Your task to perform on an android device: open app "Google Play services" Image 0: 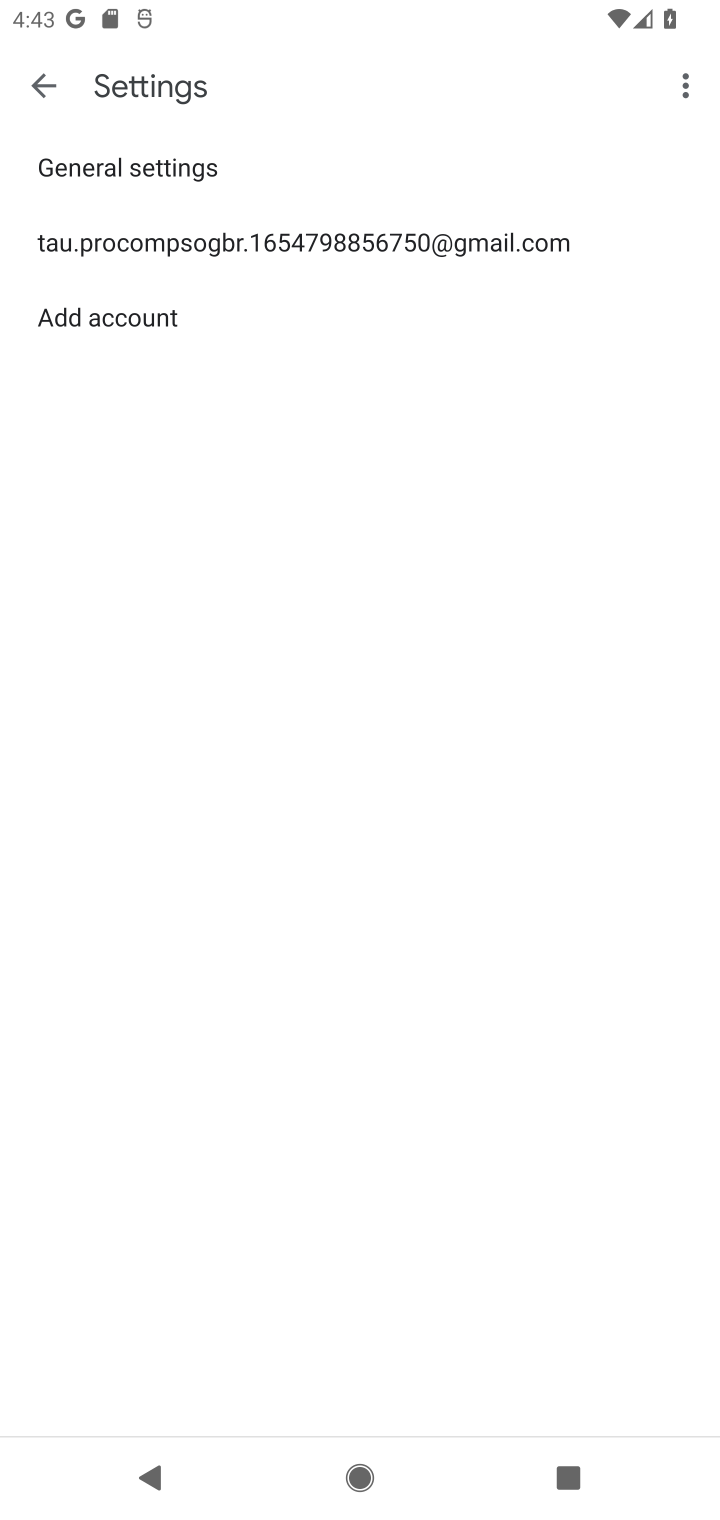
Step 0: press home button
Your task to perform on an android device: open app "Google Play services" Image 1: 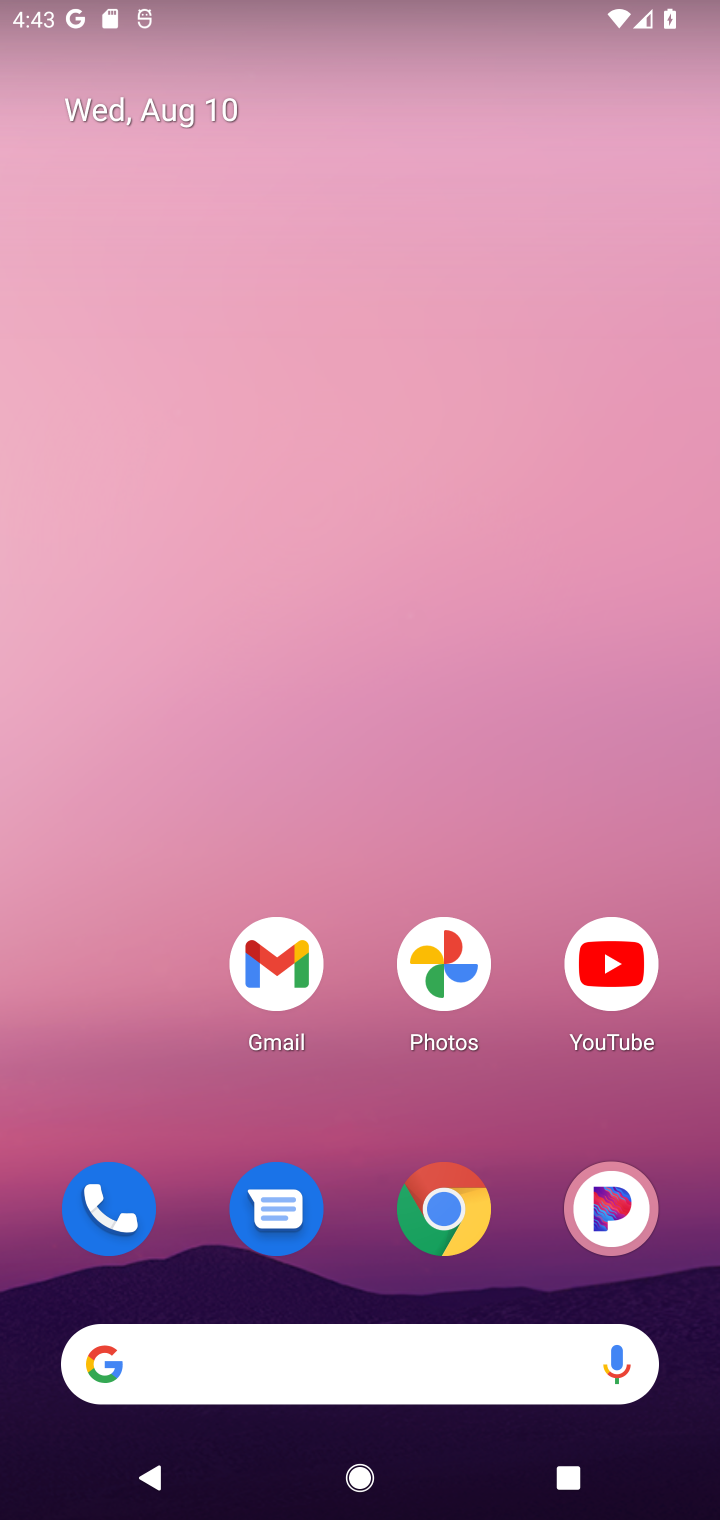
Step 1: drag from (349, 1295) to (355, 7)
Your task to perform on an android device: open app "Google Play services" Image 2: 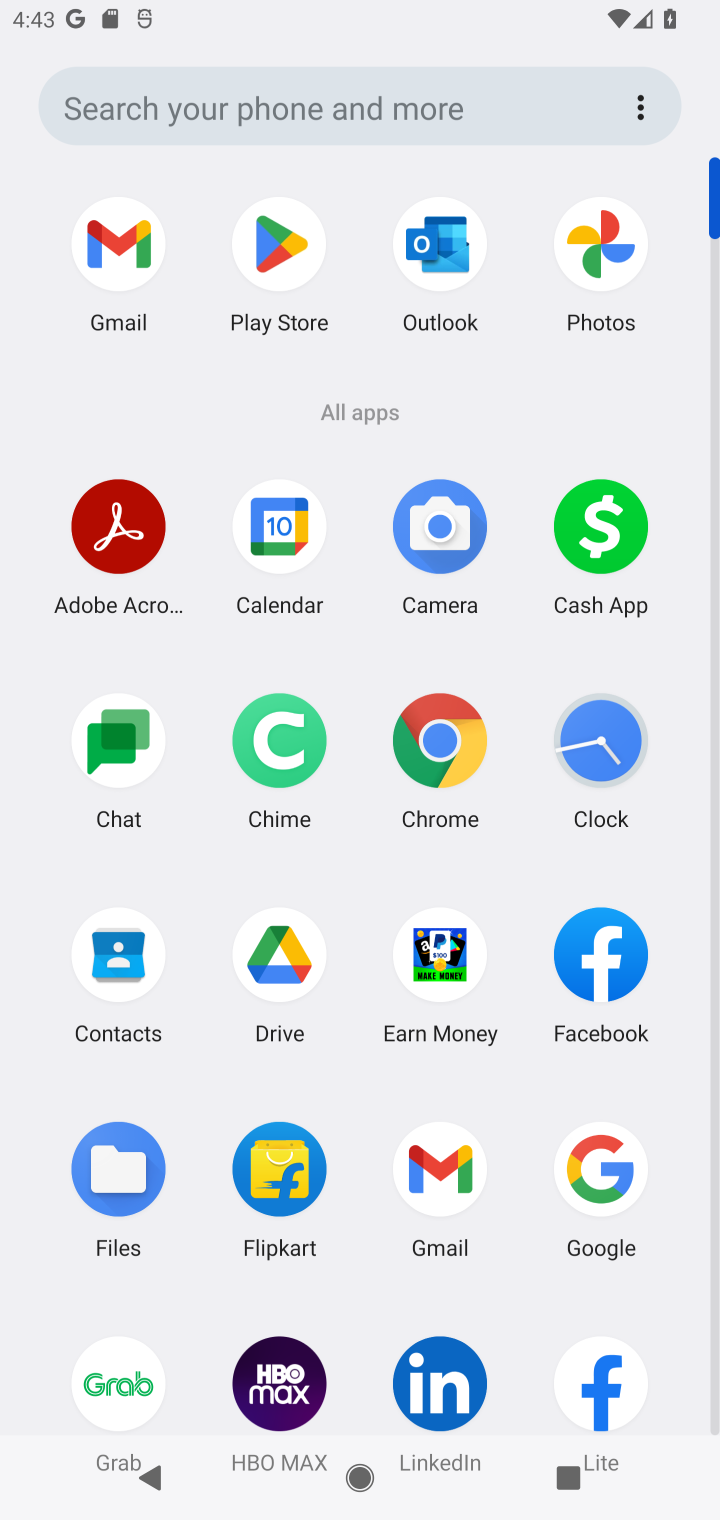
Step 2: click (277, 289)
Your task to perform on an android device: open app "Google Play services" Image 3: 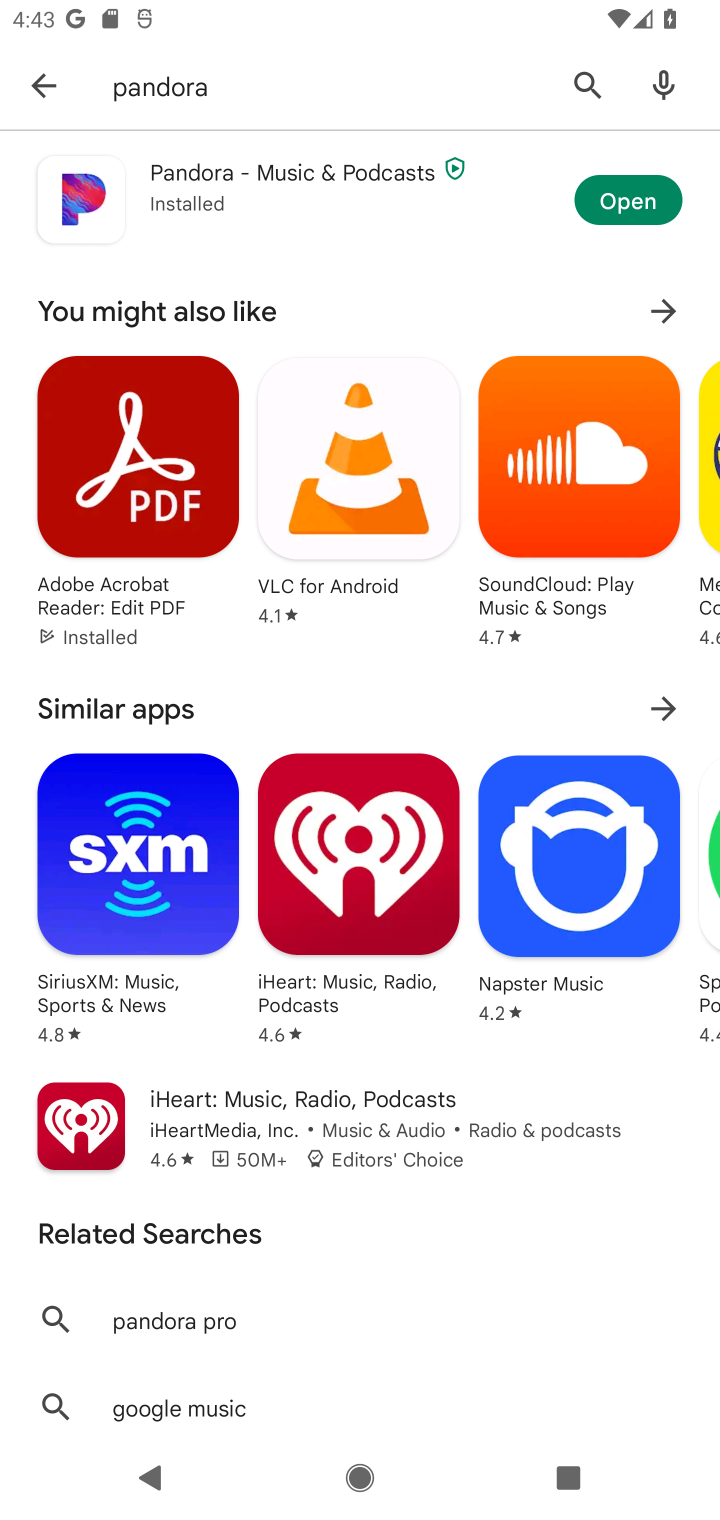
Step 3: click (561, 117)
Your task to perform on an android device: open app "Google Play services" Image 4: 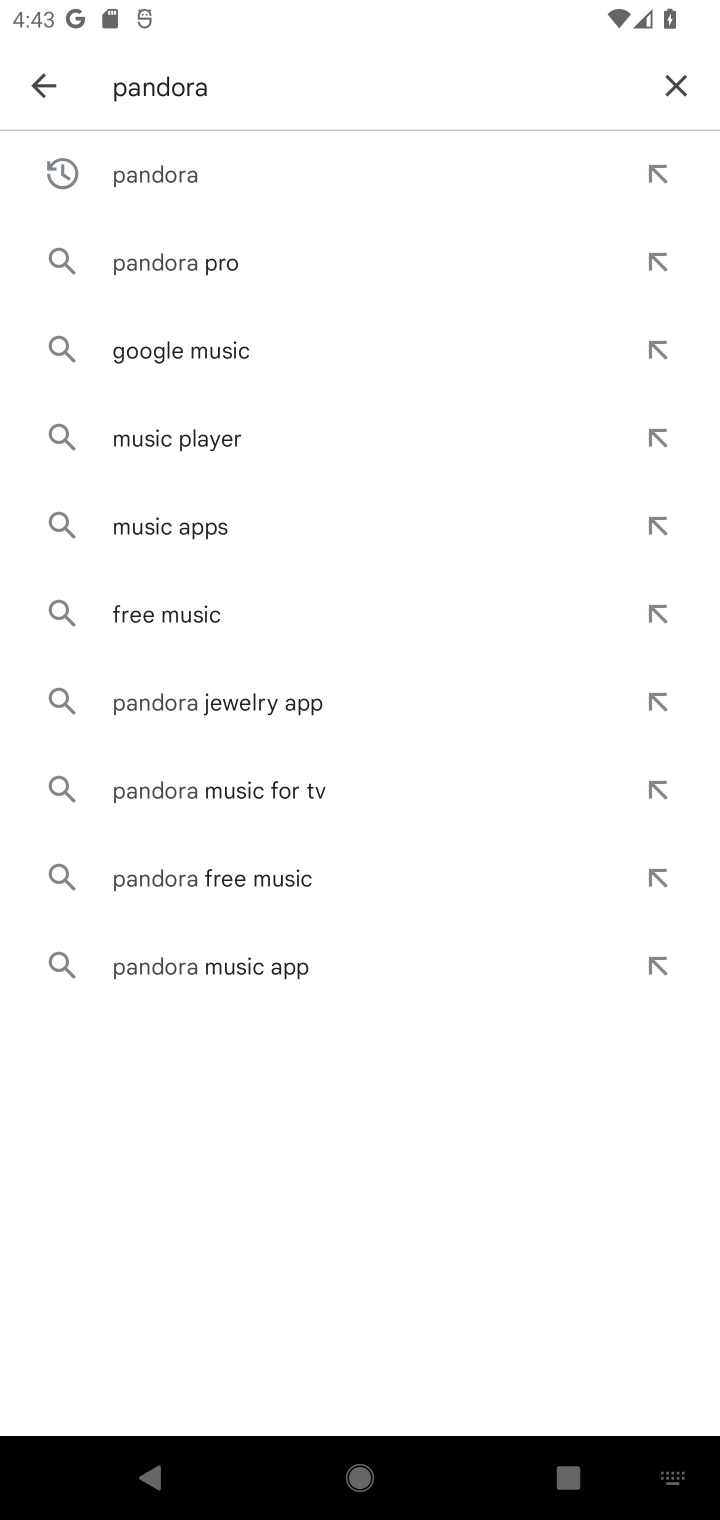
Step 4: click (698, 107)
Your task to perform on an android device: open app "Google Play services" Image 5: 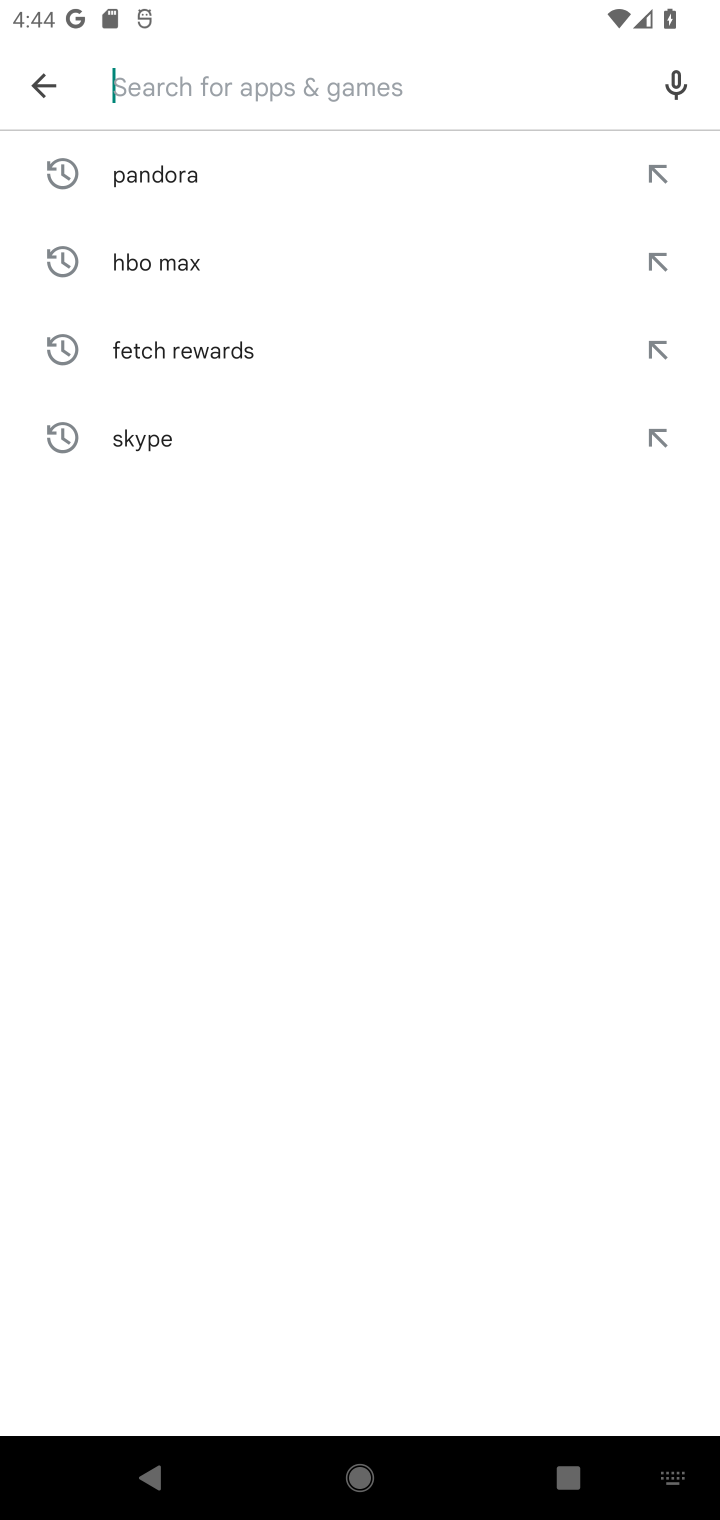
Step 5: type "google play service"
Your task to perform on an android device: open app "Google Play services" Image 6: 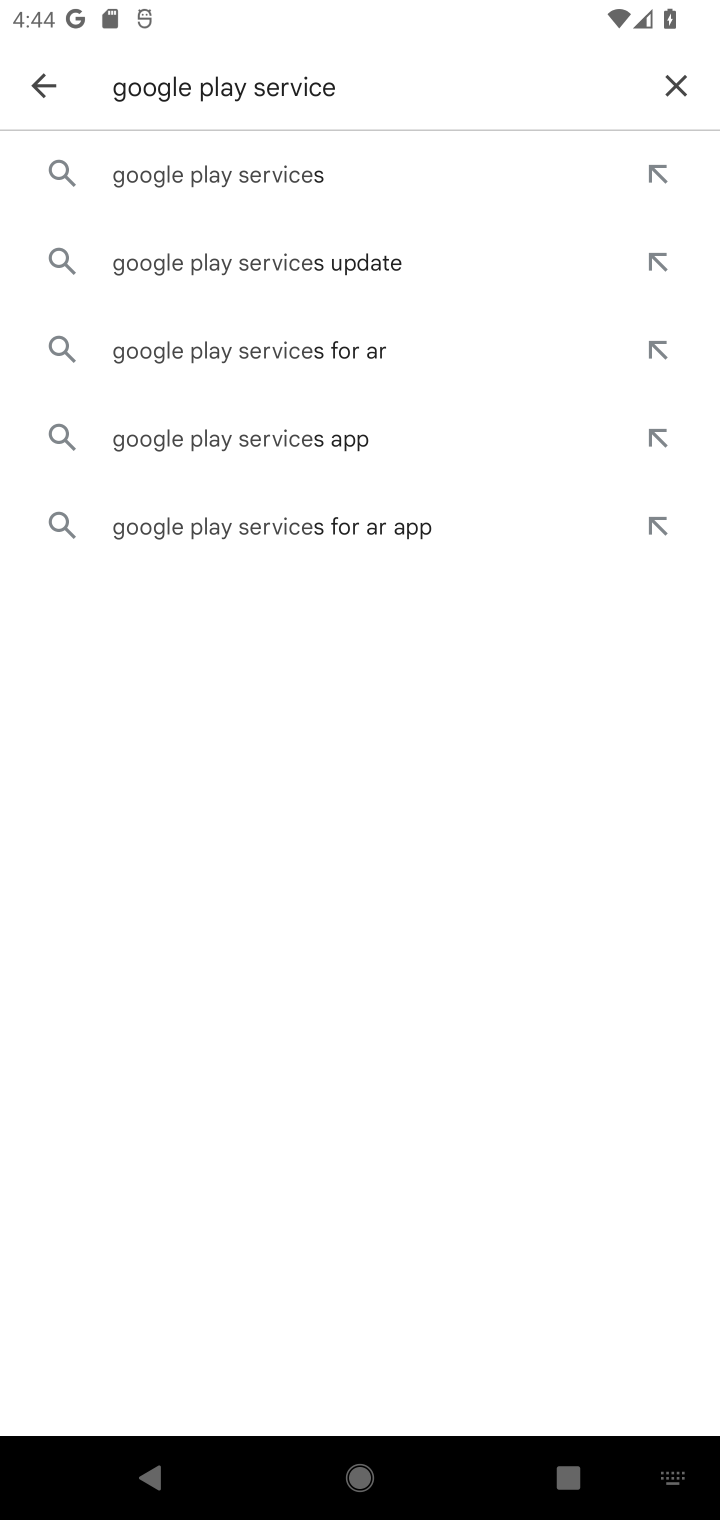
Step 6: click (414, 197)
Your task to perform on an android device: open app "Google Play services" Image 7: 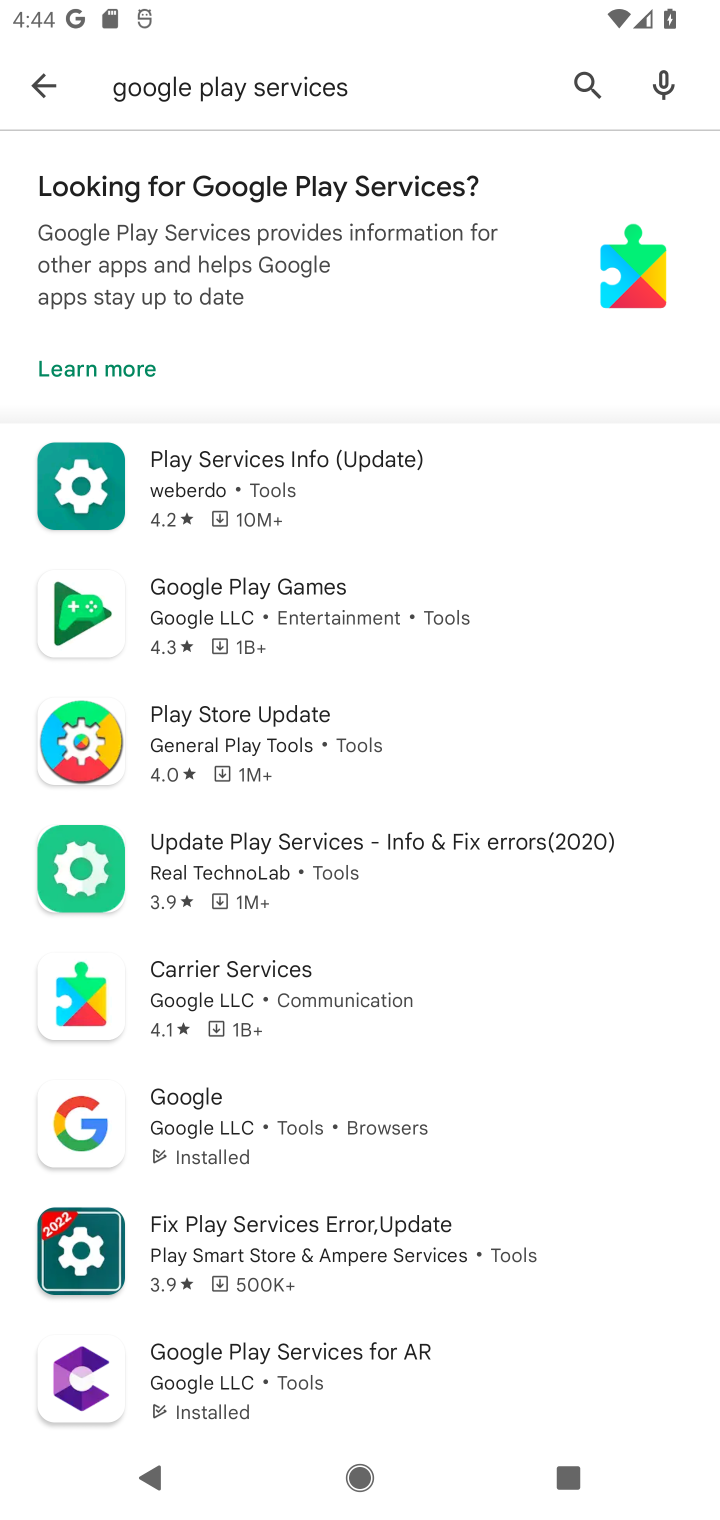
Step 7: click (265, 507)
Your task to perform on an android device: open app "Google Play services" Image 8: 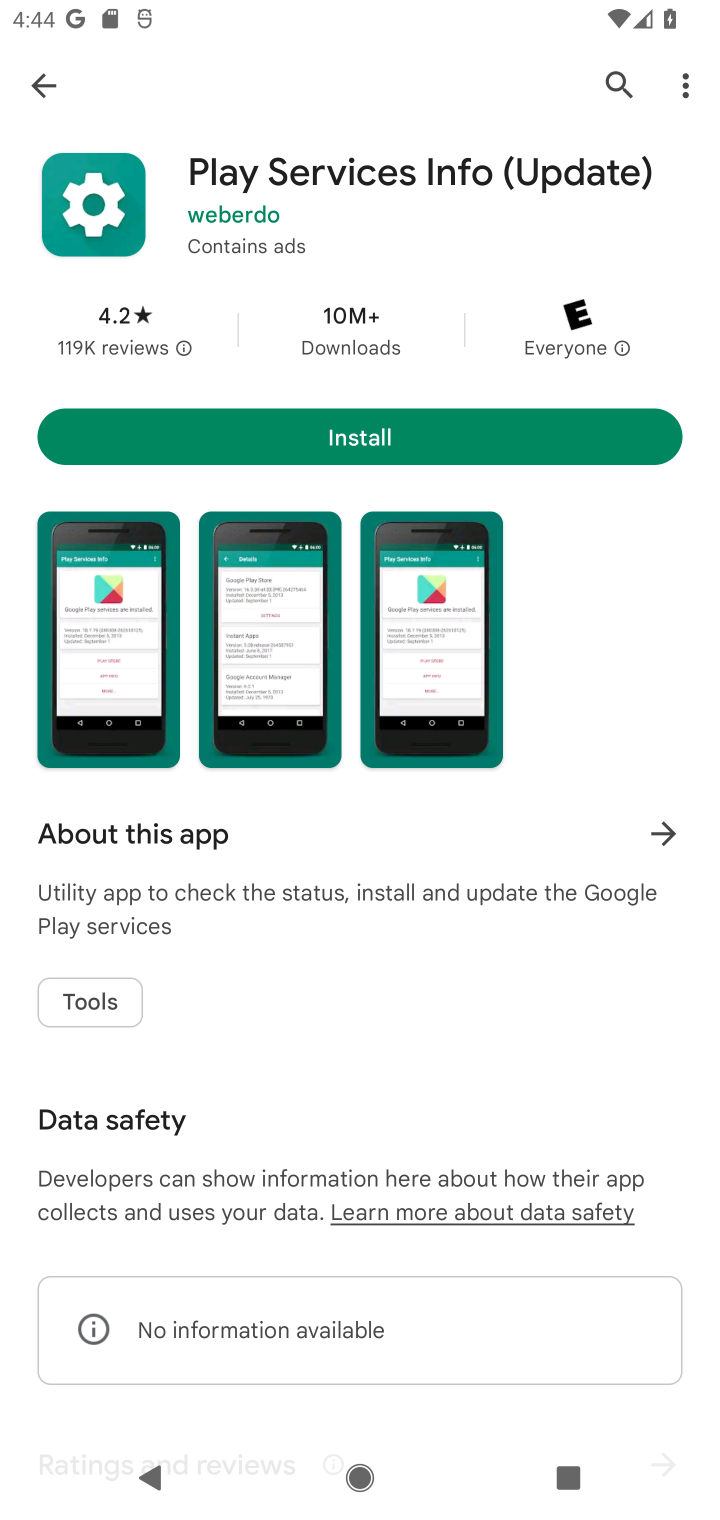
Step 8: click (440, 434)
Your task to perform on an android device: open app "Google Play services" Image 9: 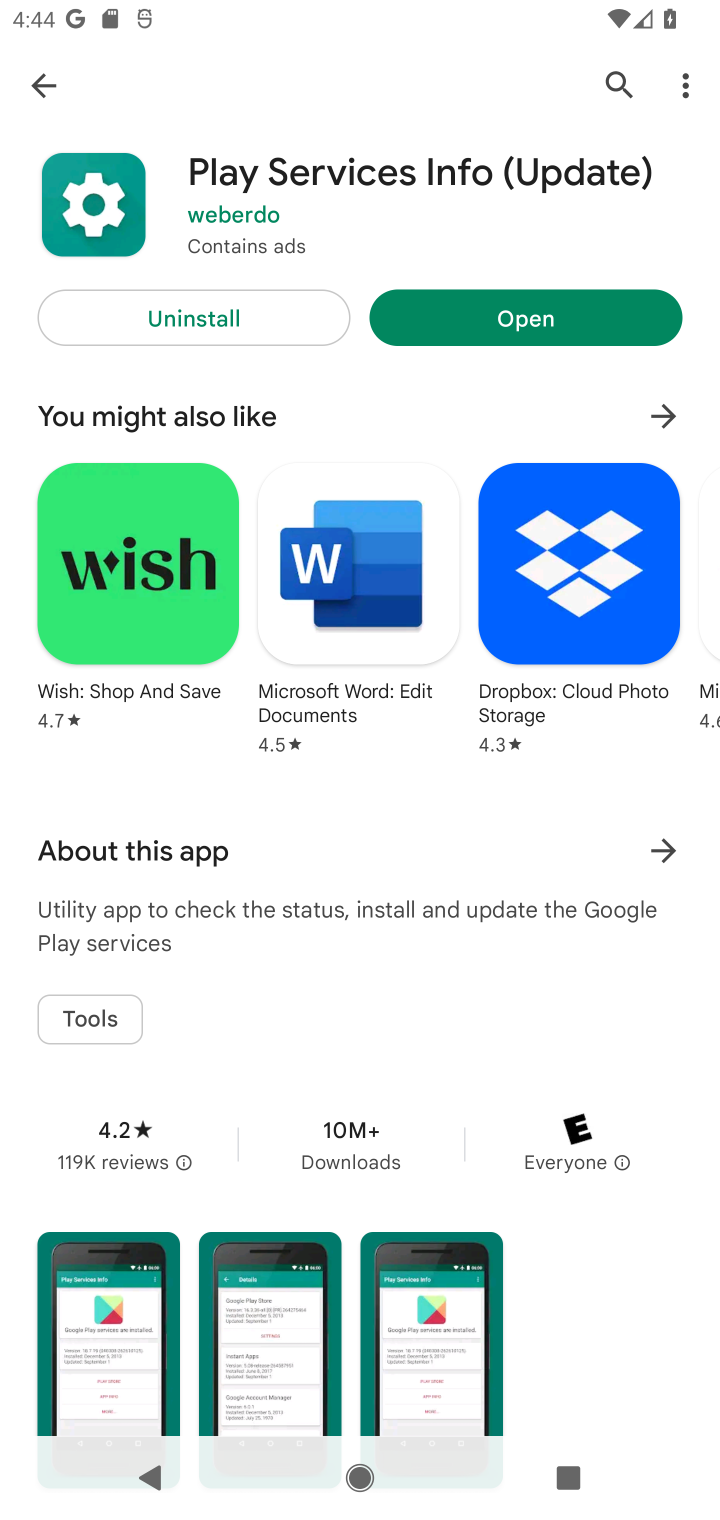
Step 9: click (528, 306)
Your task to perform on an android device: open app "Google Play services" Image 10: 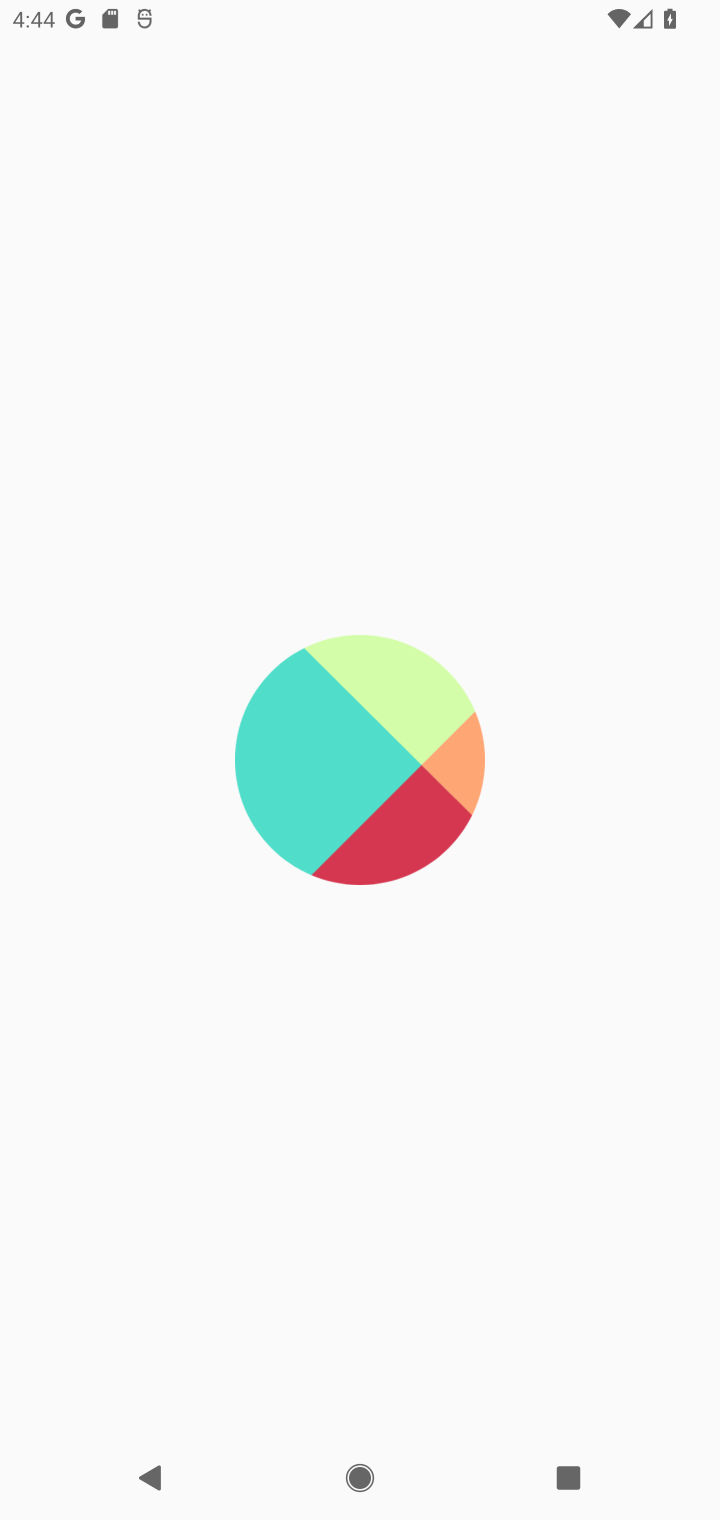
Step 10: task complete